Your task to perform on an android device: Toggle the flashlight Image 0: 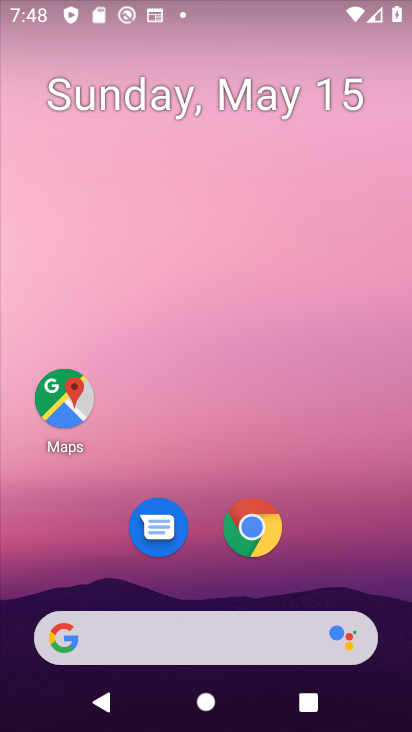
Step 0: drag from (252, 1) to (239, 421)
Your task to perform on an android device: Toggle the flashlight Image 1: 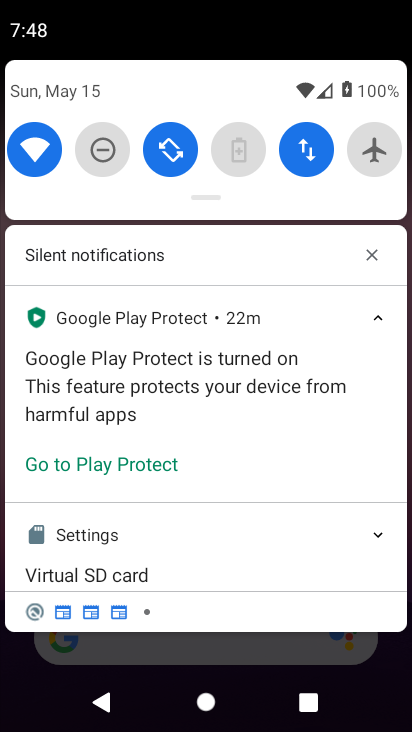
Step 1: drag from (178, 311) to (188, 546)
Your task to perform on an android device: Toggle the flashlight Image 2: 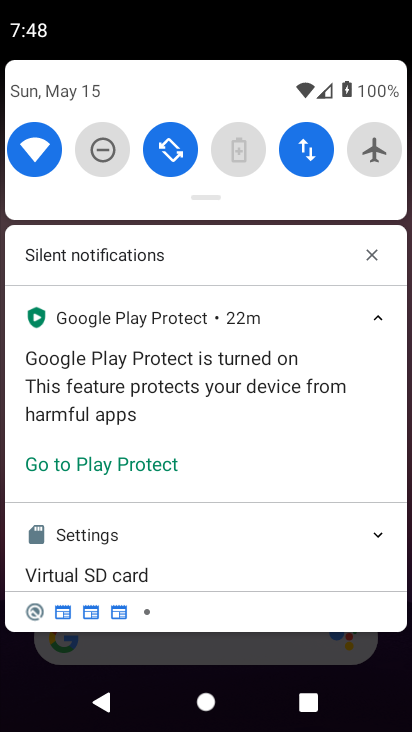
Step 2: drag from (202, 174) to (196, 621)
Your task to perform on an android device: Toggle the flashlight Image 3: 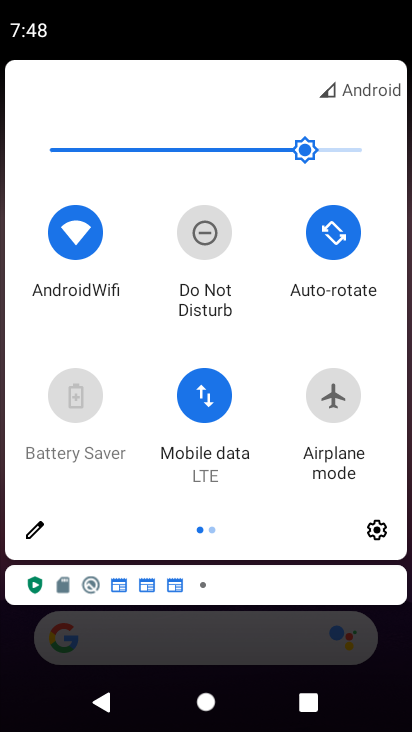
Step 3: drag from (314, 502) to (27, 487)
Your task to perform on an android device: Toggle the flashlight Image 4: 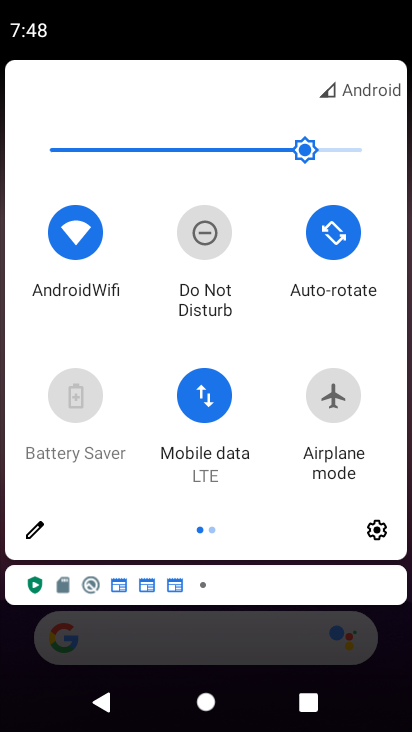
Step 4: drag from (258, 496) to (23, 506)
Your task to perform on an android device: Toggle the flashlight Image 5: 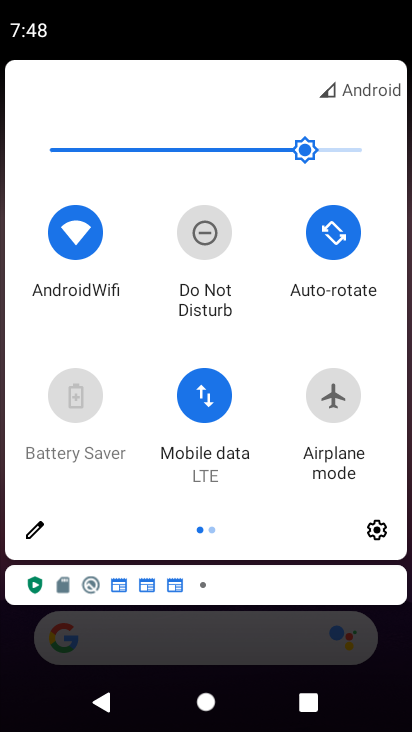
Step 5: drag from (318, 484) to (14, 503)
Your task to perform on an android device: Toggle the flashlight Image 6: 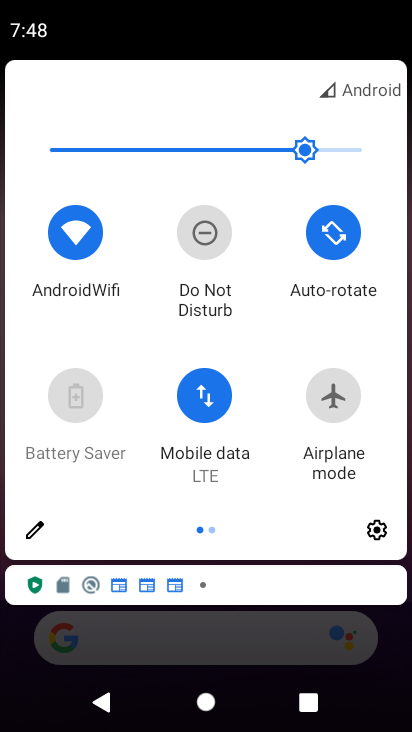
Step 6: click (213, 532)
Your task to perform on an android device: Toggle the flashlight Image 7: 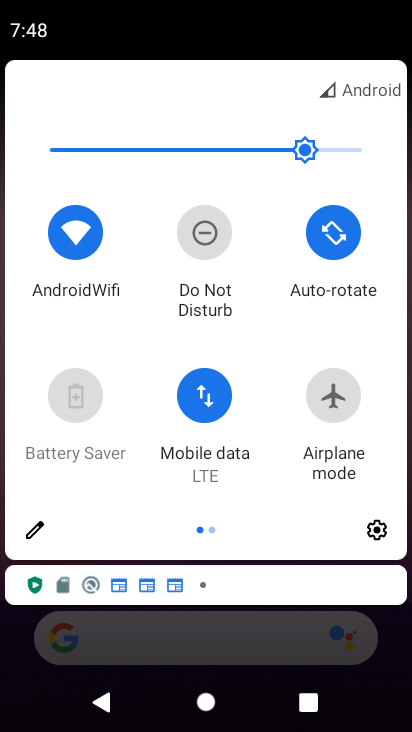
Step 7: task complete